Your task to perform on an android device: Search for seafood restaurants on Google Maps Image 0: 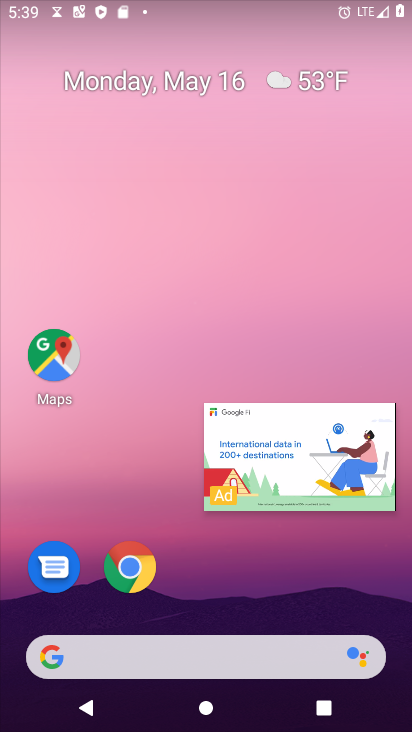
Step 0: click (375, 415)
Your task to perform on an android device: Search for seafood restaurants on Google Maps Image 1: 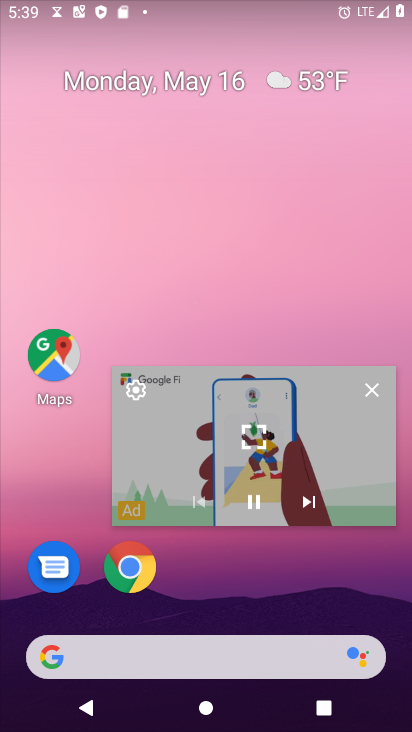
Step 1: click (370, 397)
Your task to perform on an android device: Search for seafood restaurants on Google Maps Image 2: 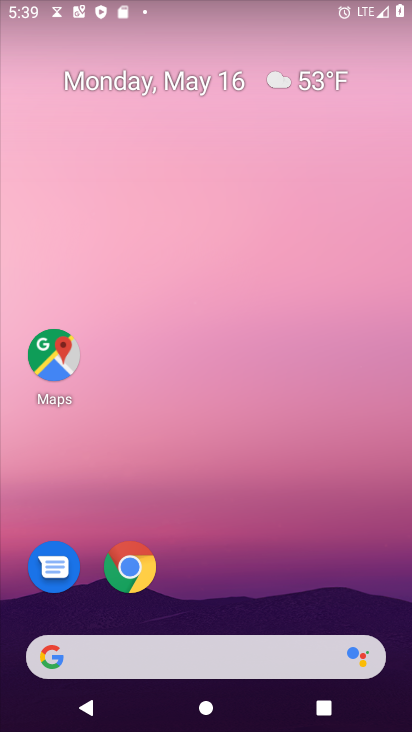
Step 2: drag from (223, 504) to (281, 26)
Your task to perform on an android device: Search for seafood restaurants on Google Maps Image 3: 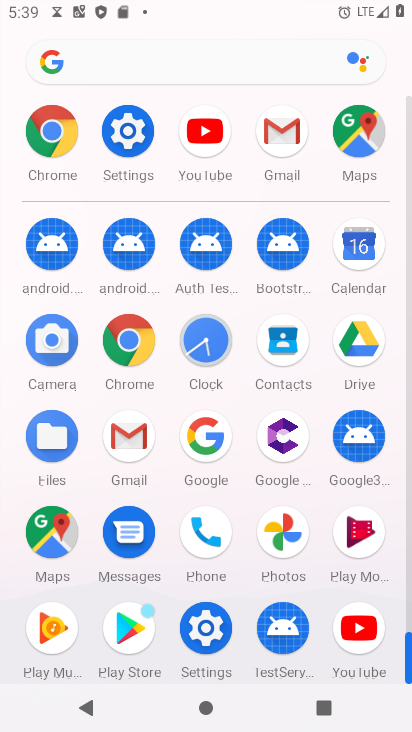
Step 3: click (53, 551)
Your task to perform on an android device: Search for seafood restaurants on Google Maps Image 4: 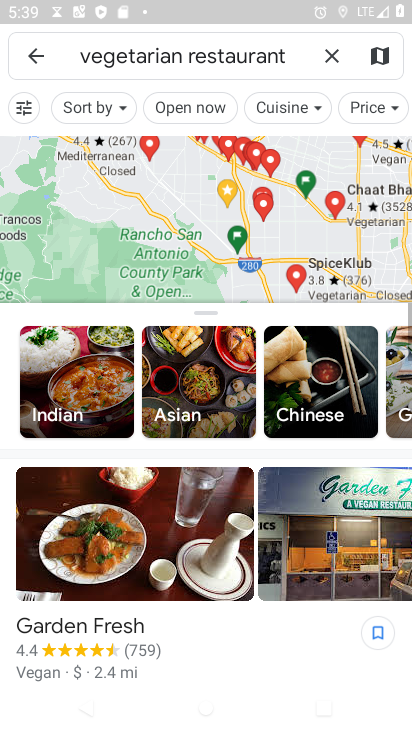
Step 4: click (329, 60)
Your task to perform on an android device: Search for seafood restaurants on Google Maps Image 5: 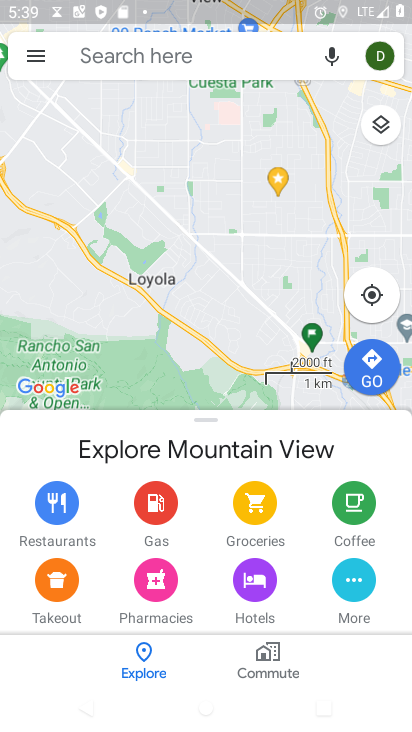
Step 5: click (261, 51)
Your task to perform on an android device: Search for seafood restaurants on Google Maps Image 6: 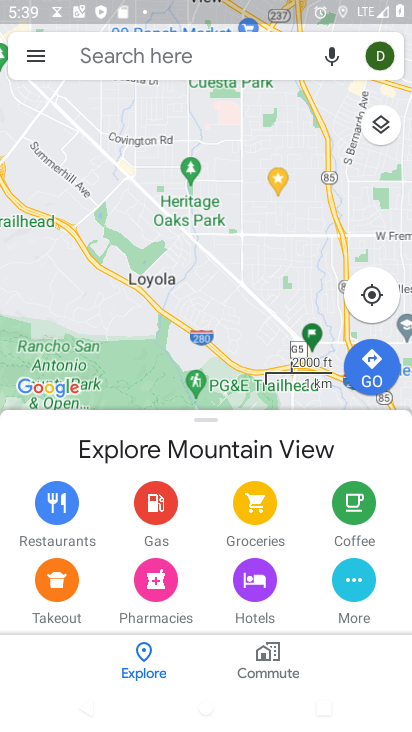
Step 6: click (261, 51)
Your task to perform on an android device: Search for seafood restaurants on Google Maps Image 7: 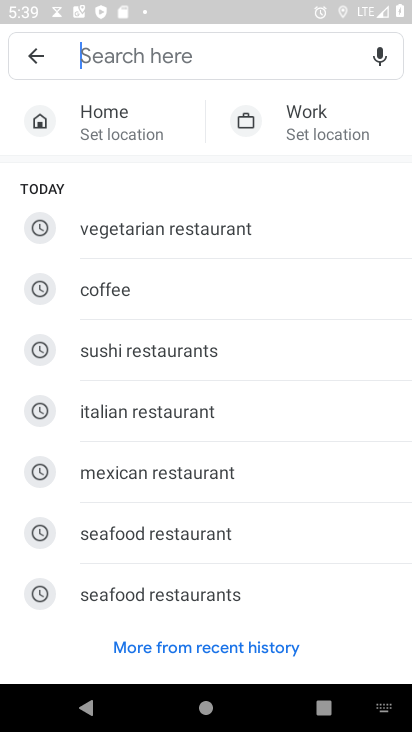
Step 7: click (146, 541)
Your task to perform on an android device: Search for seafood restaurants on Google Maps Image 8: 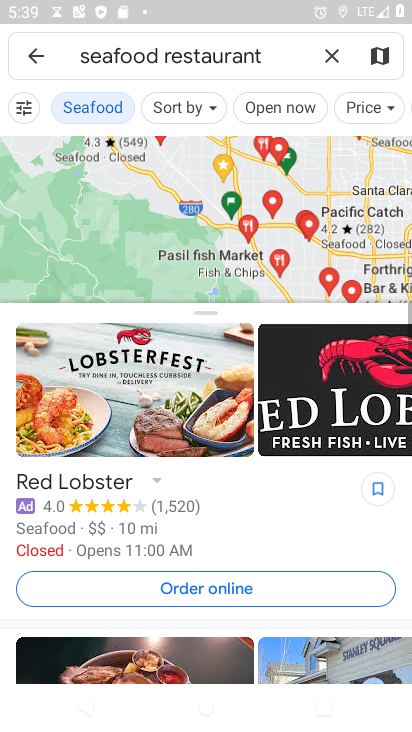
Step 8: task complete